Your task to perform on an android device: Search for pizza restaurants on Maps Image 0: 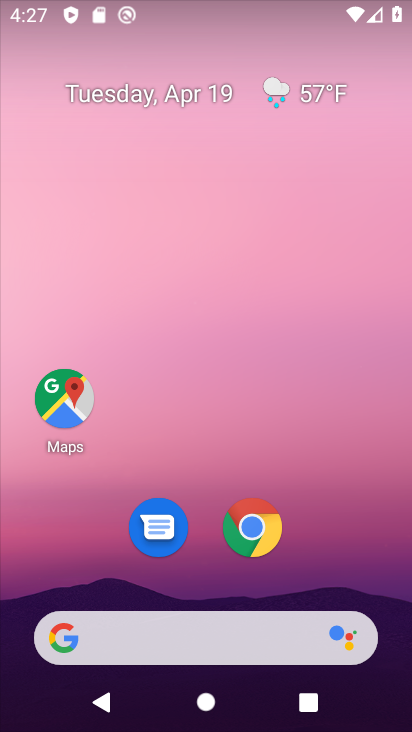
Step 0: click (62, 397)
Your task to perform on an android device: Search for pizza restaurants on Maps Image 1: 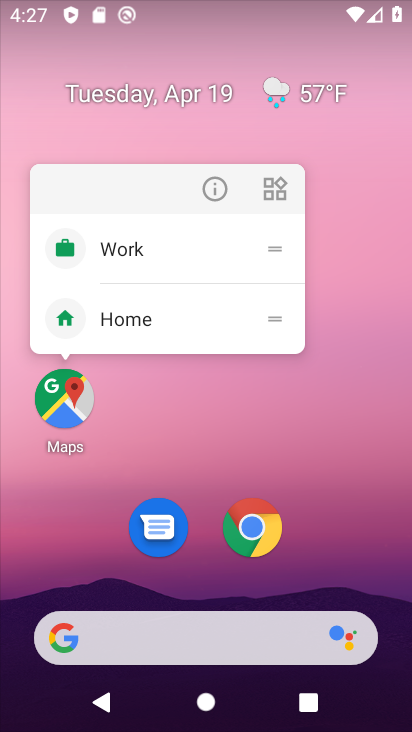
Step 1: click (62, 403)
Your task to perform on an android device: Search for pizza restaurants on Maps Image 2: 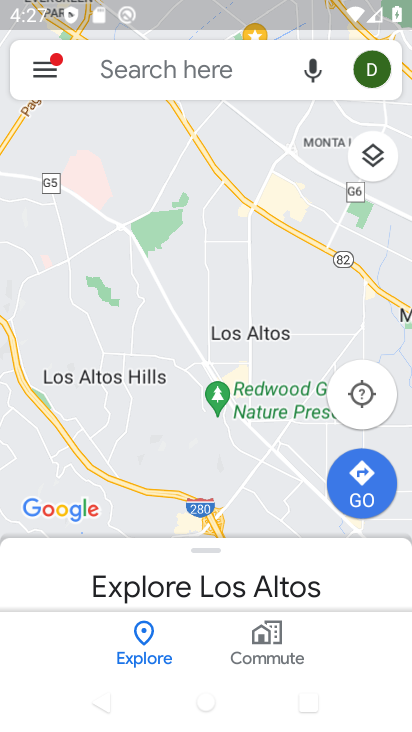
Step 2: click (142, 67)
Your task to perform on an android device: Search for pizza restaurants on Maps Image 3: 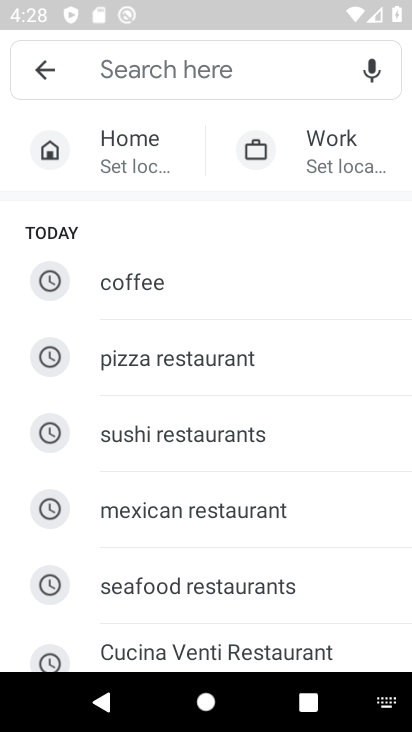
Step 3: type "pizza restaurants"
Your task to perform on an android device: Search for pizza restaurants on Maps Image 4: 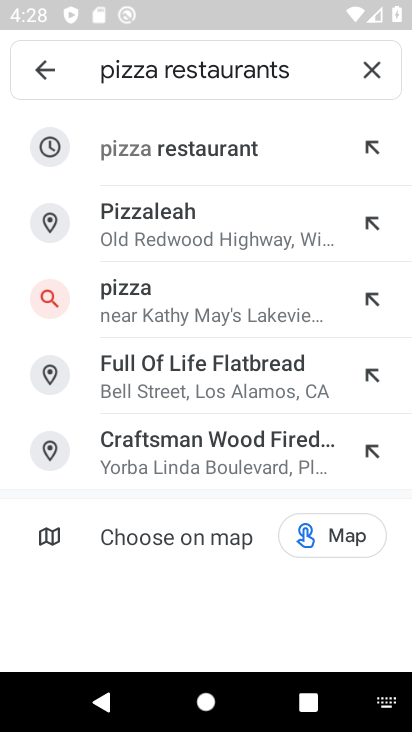
Step 4: click (158, 149)
Your task to perform on an android device: Search for pizza restaurants on Maps Image 5: 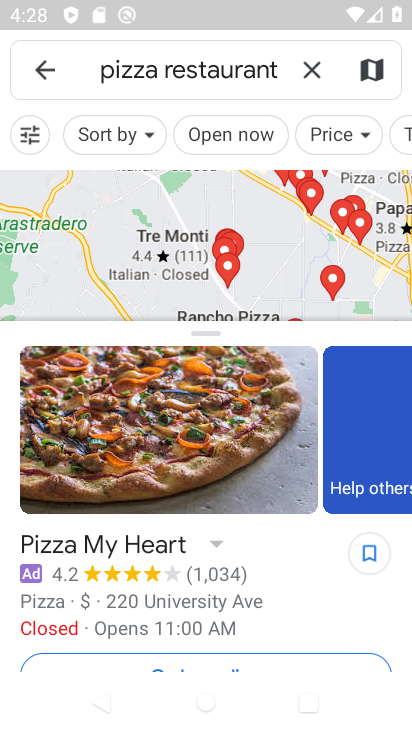
Step 5: task complete